Your task to perform on an android device: turn on translation in the chrome app Image 0: 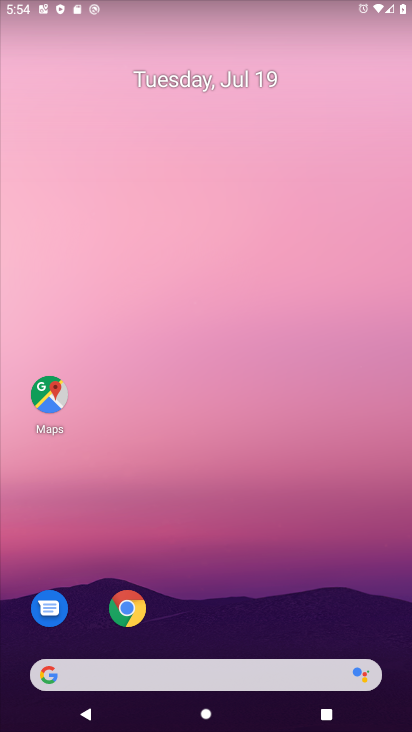
Step 0: drag from (156, 674) to (162, 3)
Your task to perform on an android device: turn on translation in the chrome app Image 1: 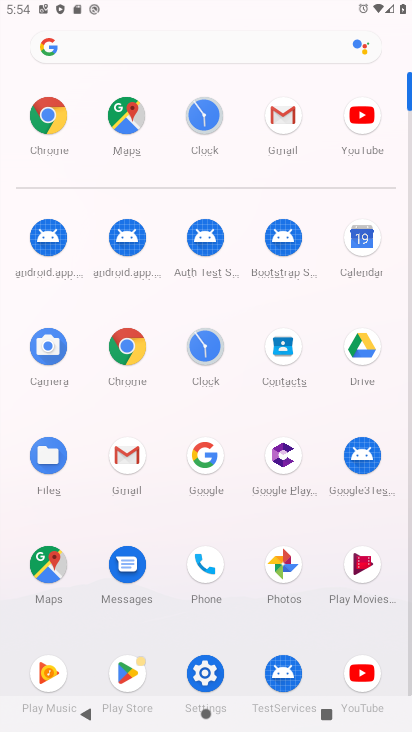
Step 1: click (123, 337)
Your task to perform on an android device: turn on translation in the chrome app Image 2: 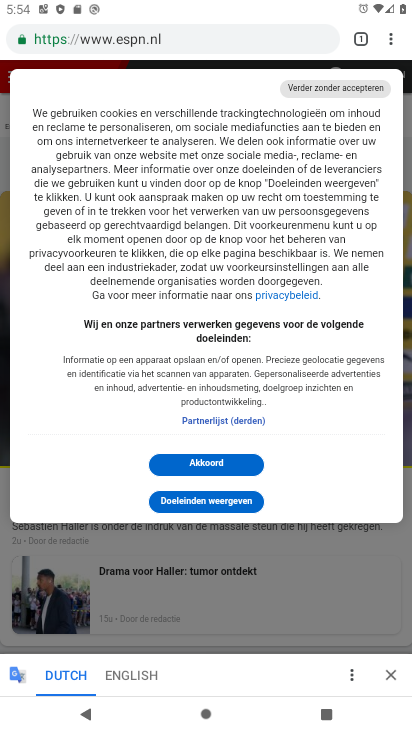
Step 2: click (388, 40)
Your task to perform on an android device: turn on translation in the chrome app Image 3: 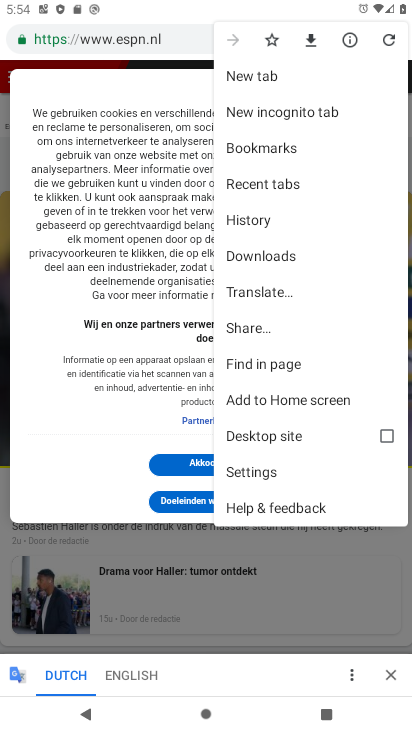
Step 3: click (271, 468)
Your task to perform on an android device: turn on translation in the chrome app Image 4: 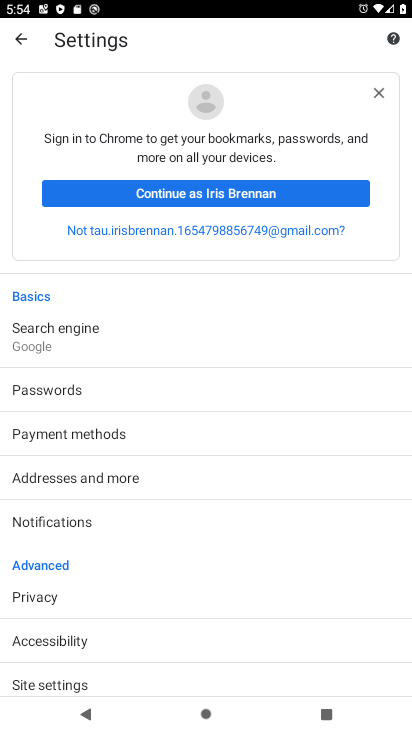
Step 4: drag from (139, 669) to (145, 407)
Your task to perform on an android device: turn on translation in the chrome app Image 5: 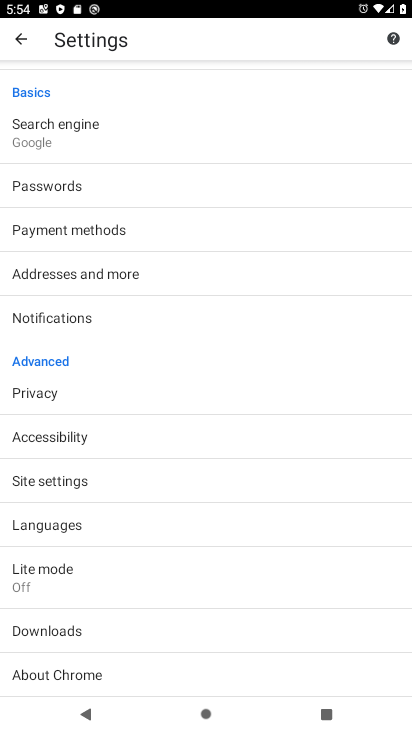
Step 5: click (67, 534)
Your task to perform on an android device: turn on translation in the chrome app Image 6: 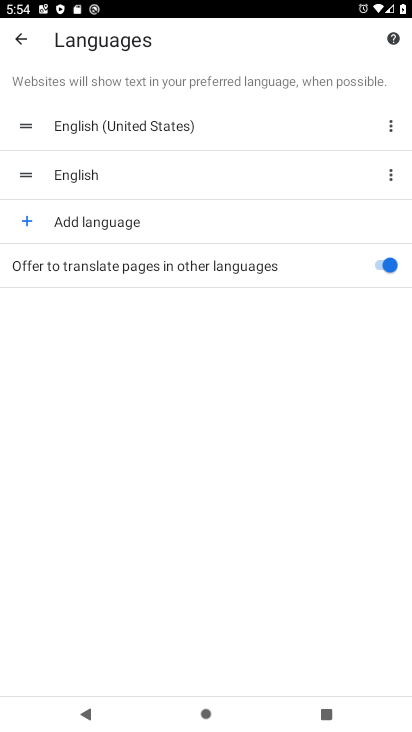
Step 6: task complete